Your task to perform on an android device: turn on the 24-hour format for clock Image 0: 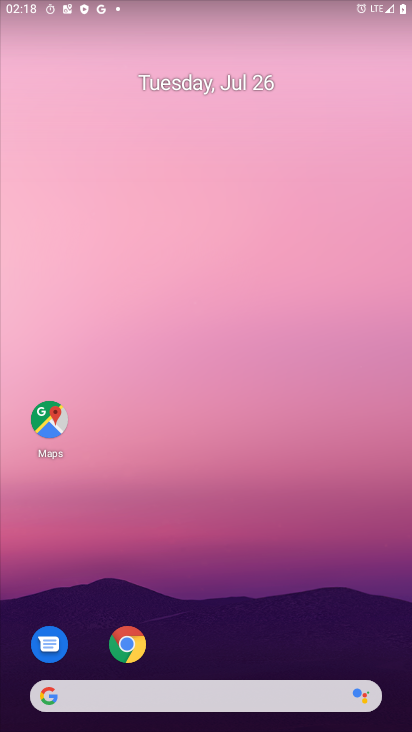
Step 0: drag from (215, 661) to (255, 96)
Your task to perform on an android device: turn on the 24-hour format for clock Image 1: 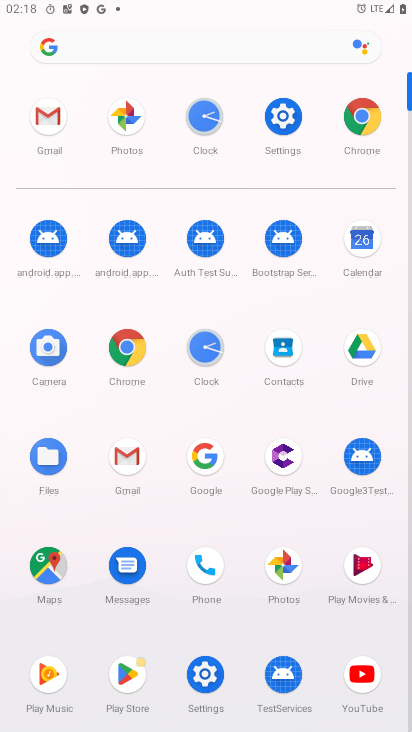
Step 1: click (200, 351)
Your task to perform on an android device: turn on the 24-hour format for clock Image 2: 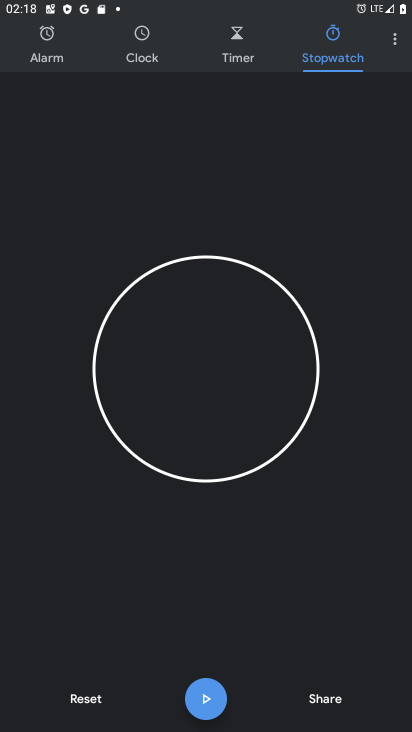
Step 2: click (398, 43)
Your task to perform on an android device: turn on the 24-hour format for clock Image 3: 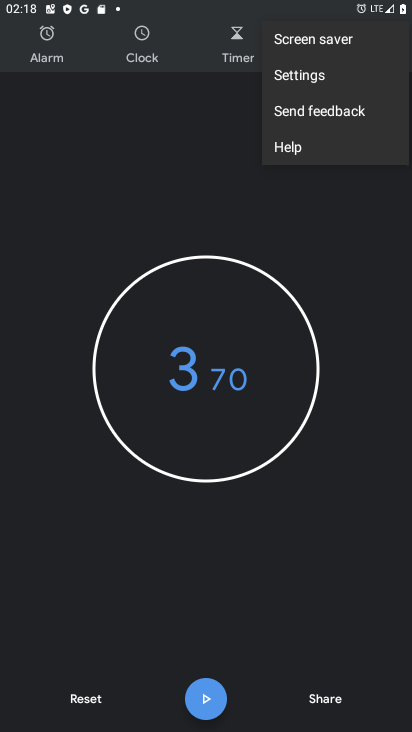
Step 3: click (302, 79)
Your task to perform on an android device: turn on the 24-hour format for clock Image 4: 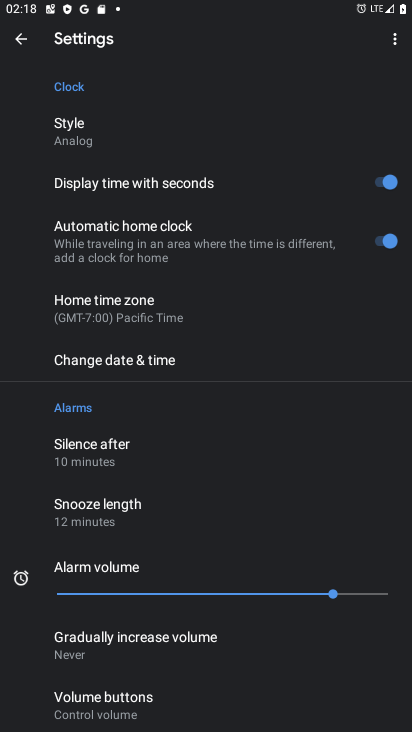
Step 4: click (156, 365)
Your task to perform on an android device: turn on the 24-hour format for clock Image 5: 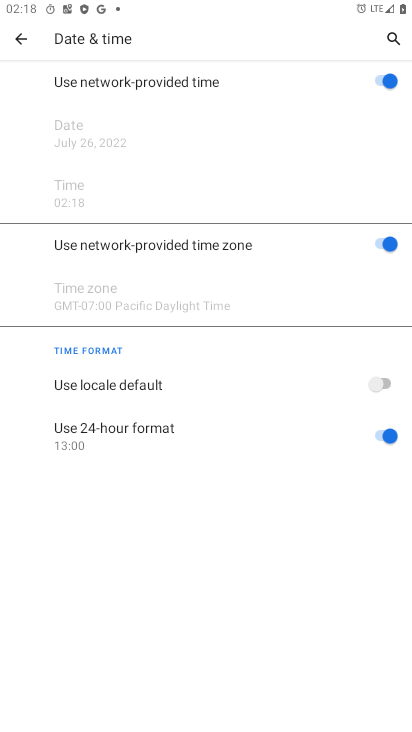
Step 5: task complete